Your task to perform on an android device: turn on wifi Image 0: 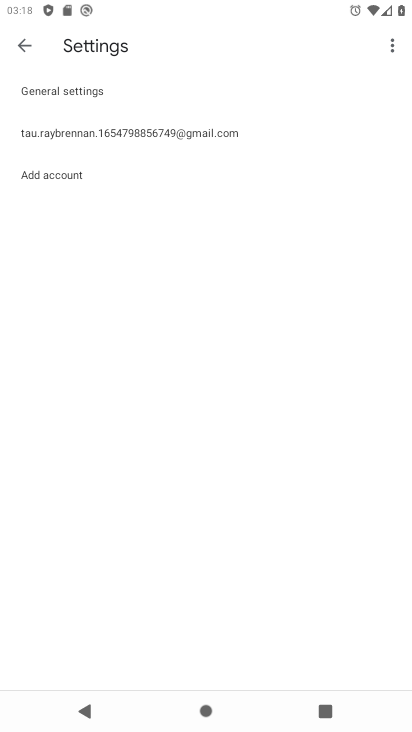
Step 0: press home button
Your task to perform on an android device: turn on wifi Image 1: 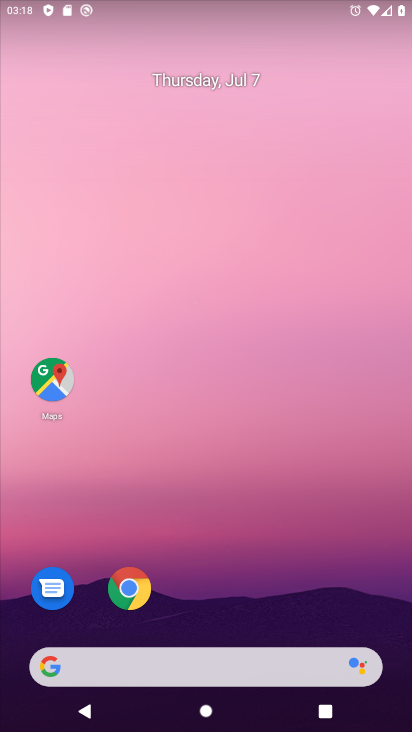
Step 1: drag from (150, 649) to (161, 270)
Your task to perform on an android device: turn on wifi Image 2: 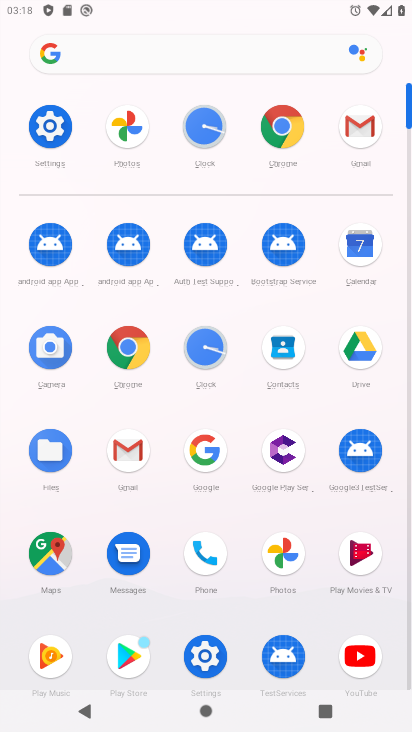
Step 2: click (60, 133)
Your task to perform on an android device: turn on wifi Image 3: 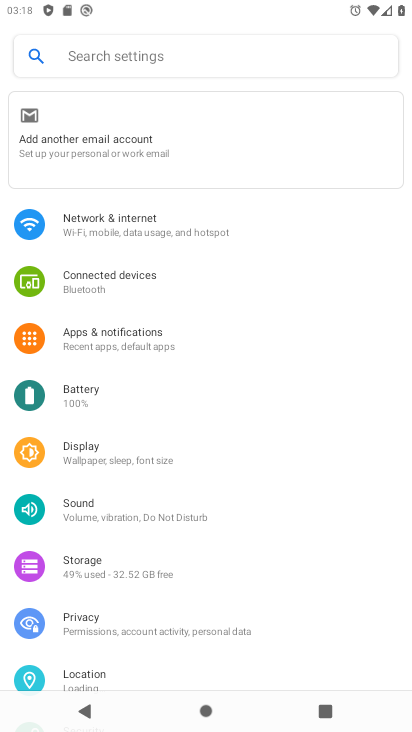
Step 3: click (132, 224)
Your task to perform on an android device: turn on wifi Image 4: 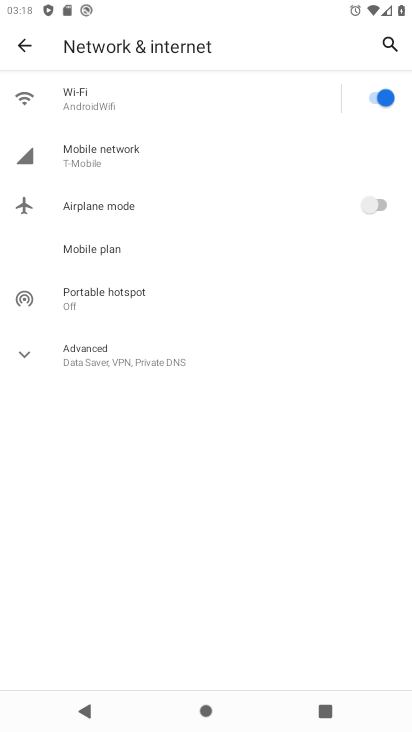
Step 4: task complete